Your task to perform on an android device: Open ESPN.com Image 0: 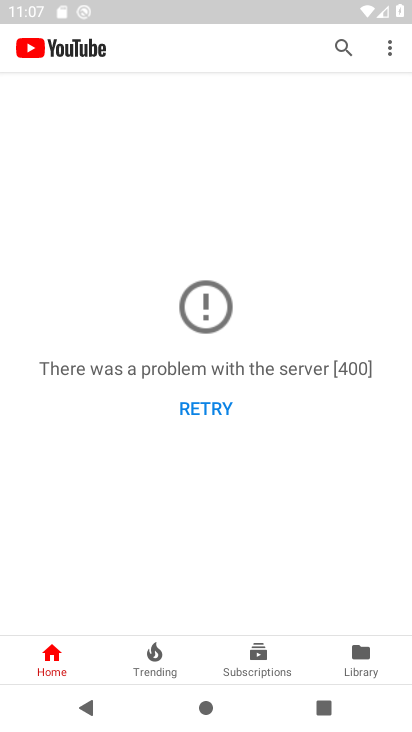
Step 0: press home button
Your task to perform on an android device: Open ESPN.com Image 1: 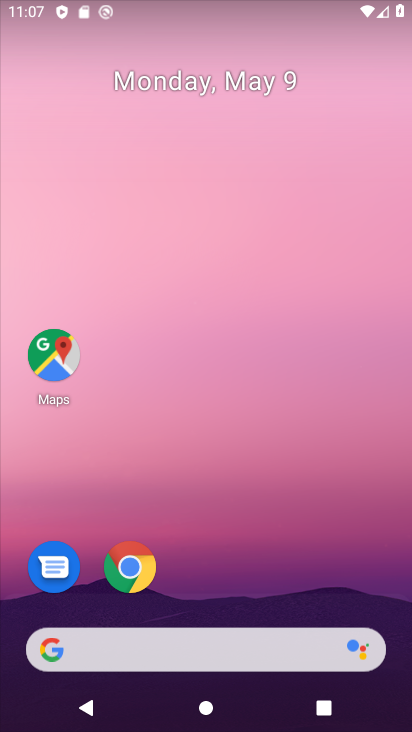
Step 1: click (139, 576)
Your task to perform on an android device: Open ESPN.com Image 2: 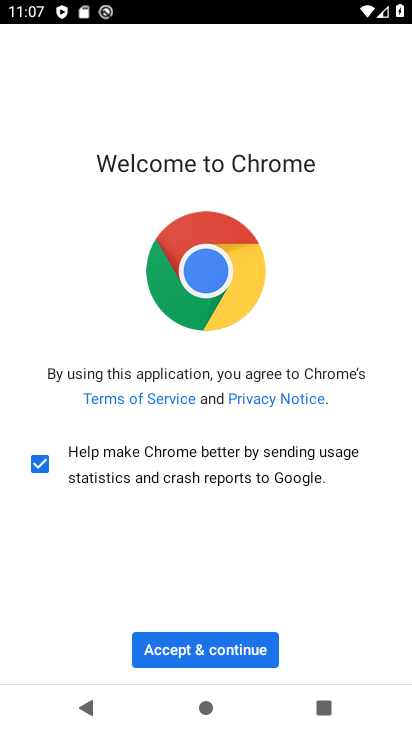
Step 2: click (227, 645)
Your task to perform on an android device: Open ESPN.com Image 3: 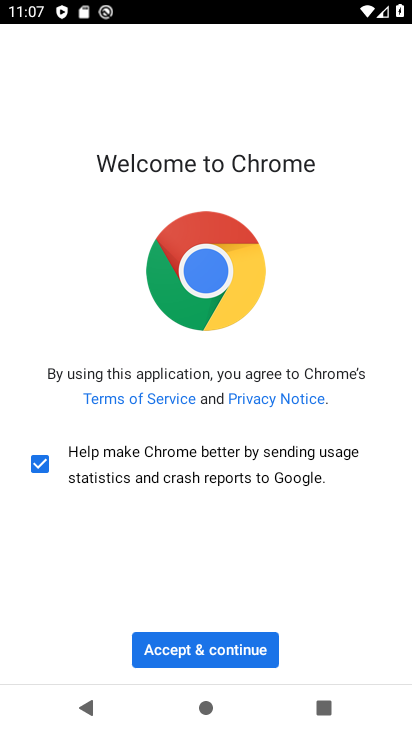
Step 3: click (227, 645)
Your task to perform on an android device: Open ESPN.com Image 4: 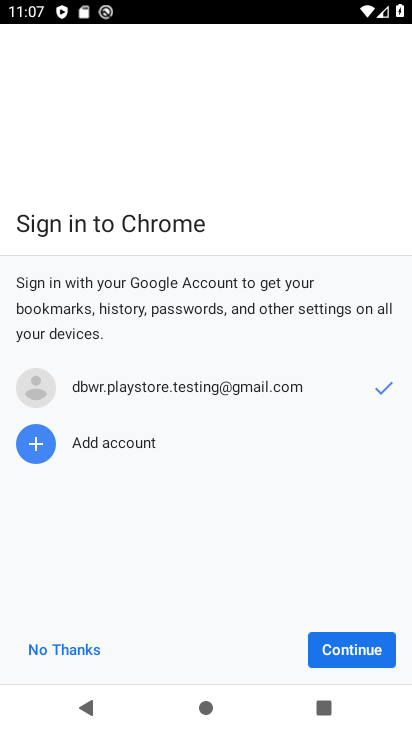
Step 4: click (336, 647)
Your task to perform on an android device: Open ESPN.com Image 5: 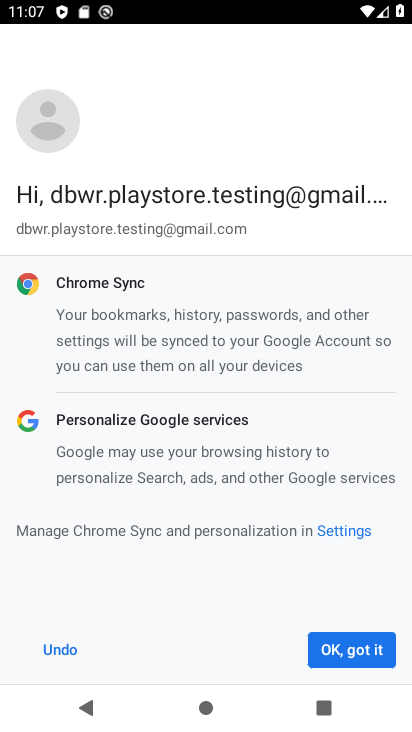
Step 5: click (338, 647)
Your task to perform on an android device: Open ESPN.com Image 6: 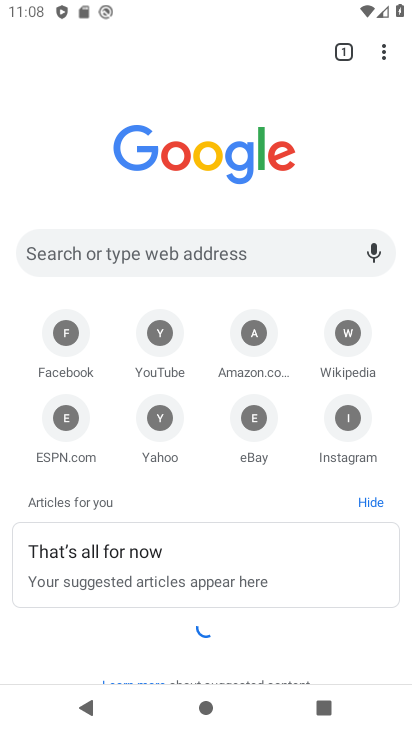
Step 6: click (202, 242)
Your task to perform on an android device: Open ESPN.com Image 7: 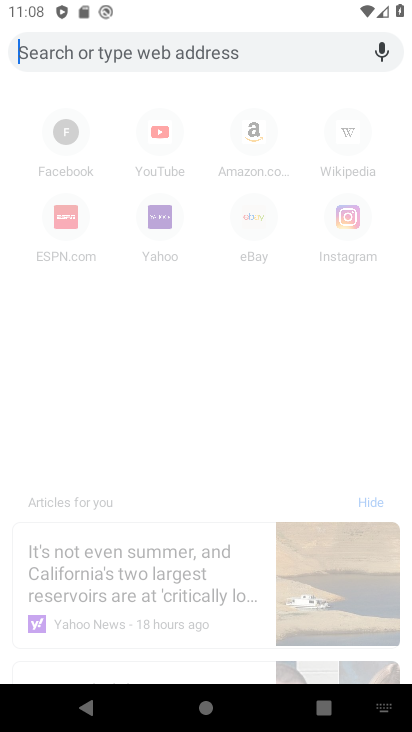
Step 7: type "ESPN.com"
Your task to perform on an android device: Open ESPN.com Image 8: 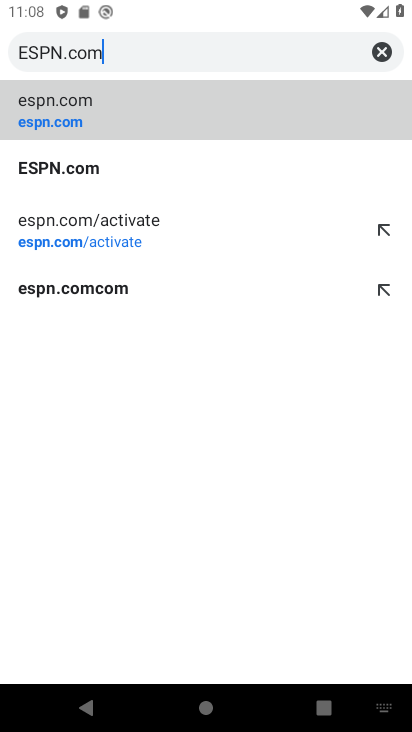
Step 8: click (80, 171)
Your task to perform on an android device: Open ESPN.com Image 9: 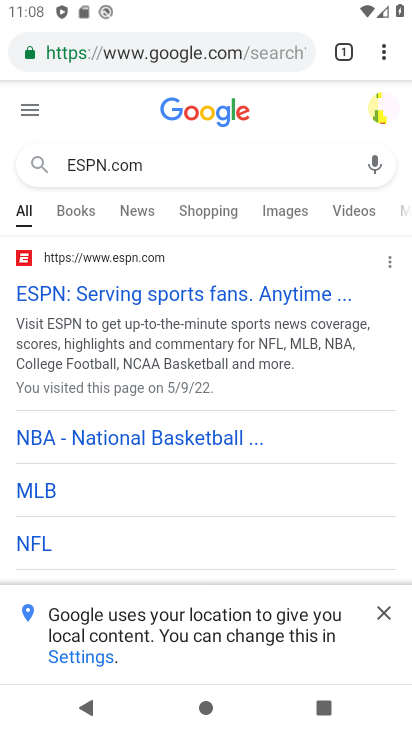
Step 9: click (381, 612)
Your task to perform on an android device: Open ESPN.com Image 10: 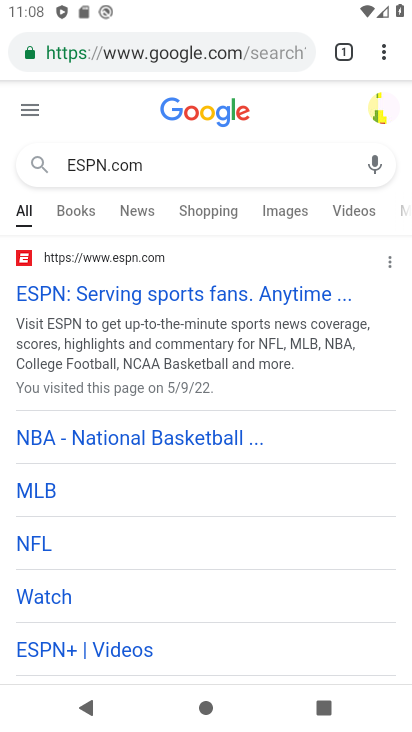
Step 10: task complete